Your task to perform on an android device: Open calendar and show me the second week of next month Image 0: 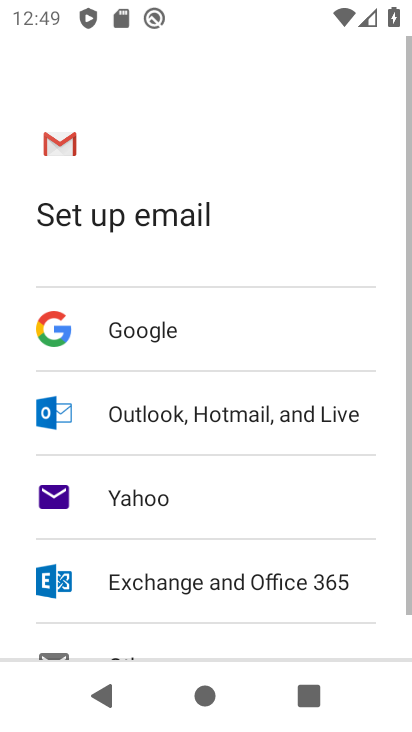
Step 0: press home button
Your task to perform on an android device: Open calendar and show me the second week of next month Image 1: 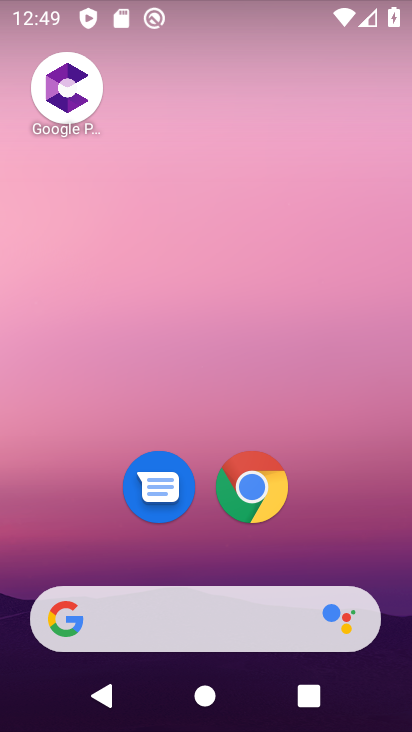
Step 1: drag from (357, 505) to (369, 235)
Your task to perform on an android device: Open calendar and show me the second week of next month Image 2: 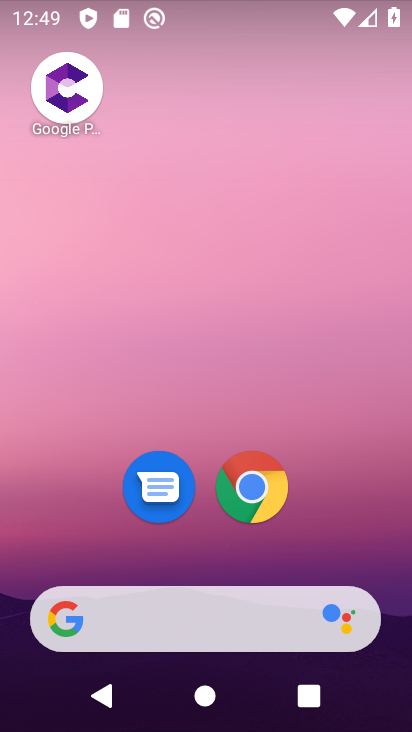
Step 2: drag from (343, 515) to (363, 110)
Your task to perform on an android device: Open calendar and show me the second week of next month Image 3: 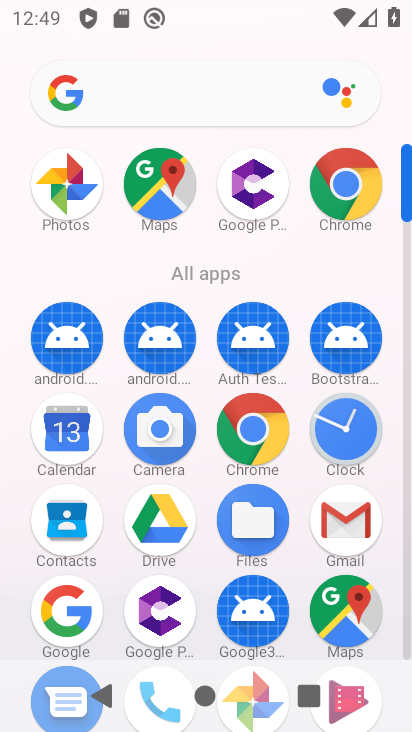
Step 3: click (86, 413)
Your task to perform on an android device: Open calendar and show me the second week of next month Image 4: 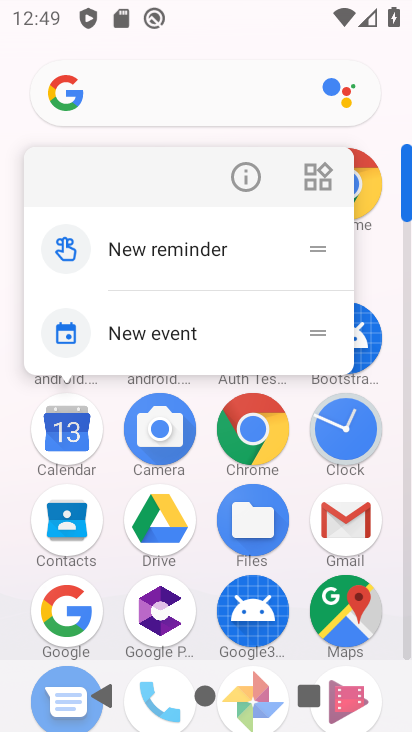
Step 4: click (66, 429)
Your task to perform on an android device: Open calendar and show me the second week of next month Image 5: 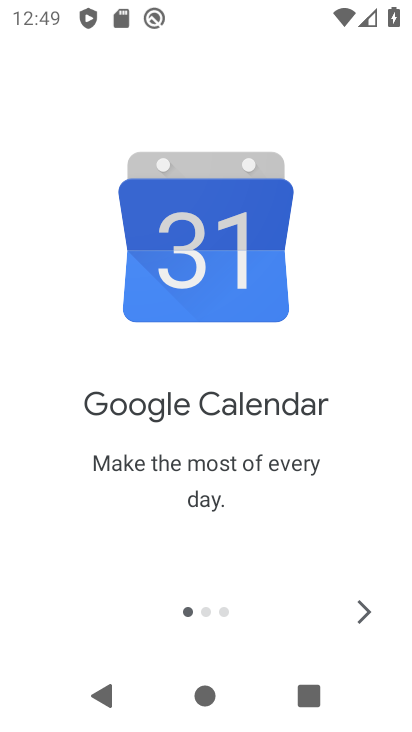
Step 5: click (368, 614)
Your task to perform on an android device: Open calendar and show me the second week of next month Image 6: 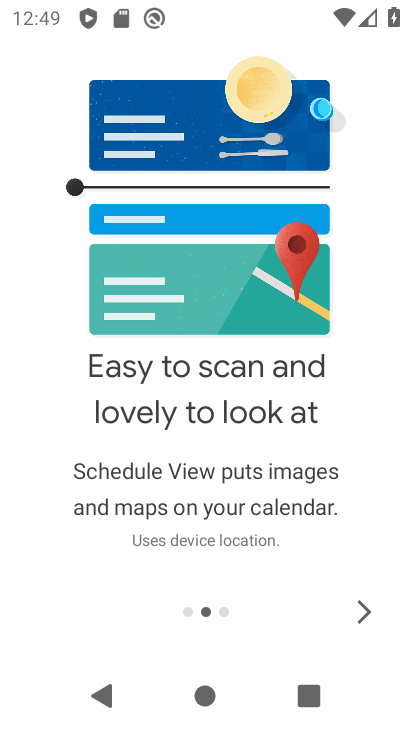
Step 6: click (368, 613)
Your task to perform on an android device: Open calendar and show me the second week of next month Image 7: 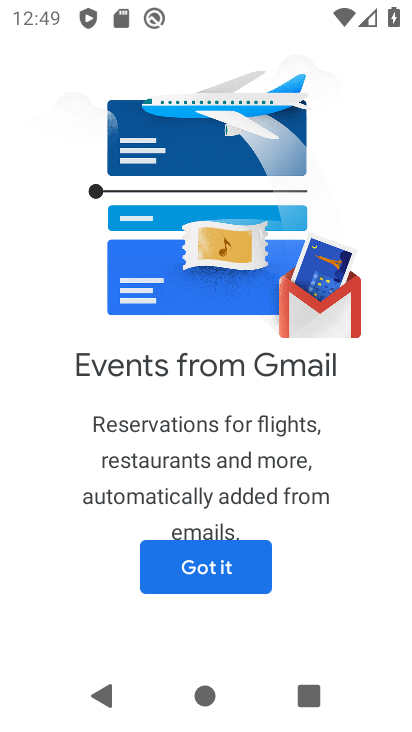
Step 7: click (219, 569)
Your task to perform on an android device: Open calendar and show me the second week of next month Image 8: 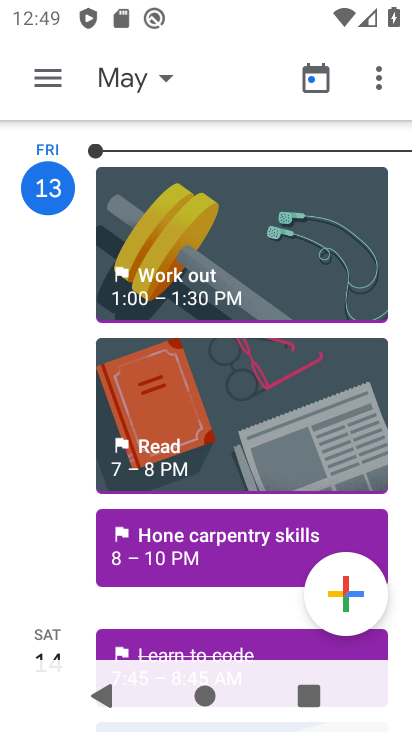
Step 8: click (120, 74)
Your task to perform on an android device: Open calendar and show me the second week of next month Image 9: 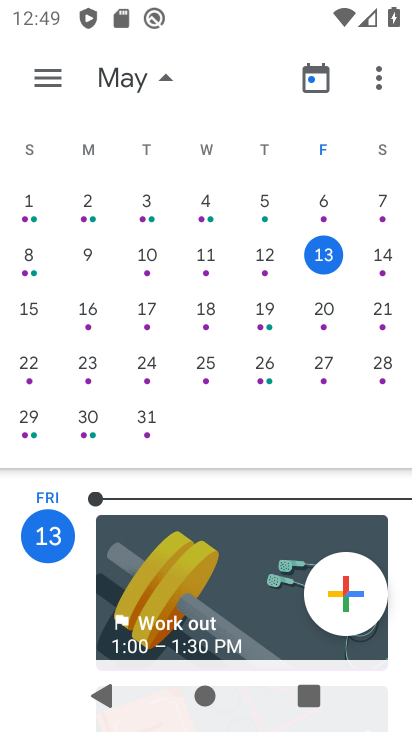
Step 9: drag from (315, 182) to (4, 236)
Your task to perform on an android device: Open calendar and show me the second week of next month Image 10: 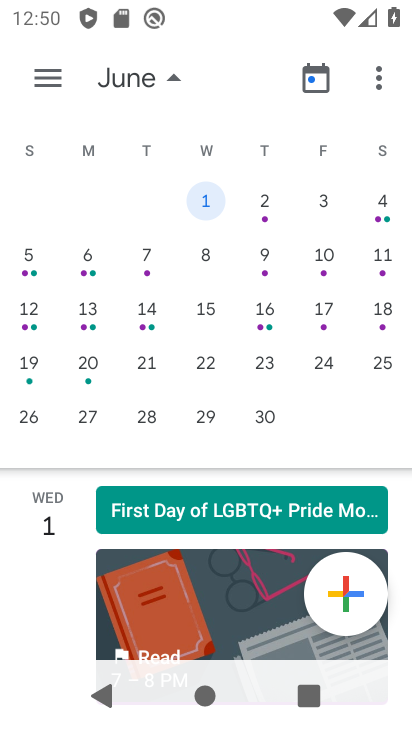
Step 10: click (31, 263)
Your task to perform on an android device: Open calendar and show me the second week of next month Image 11: 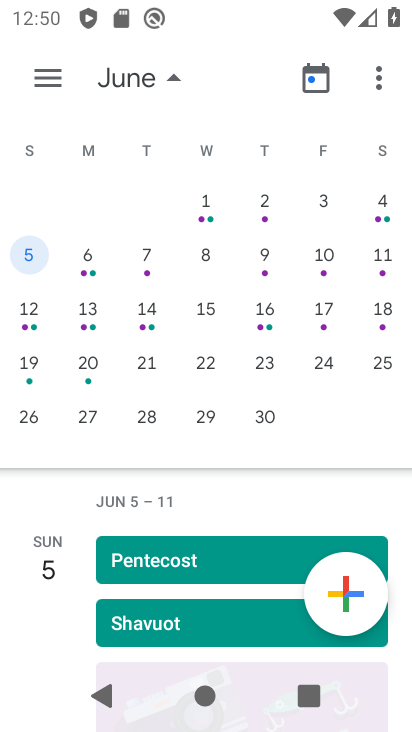
Step 11: task complete